Your task to perform on an android device: open the mobile data screen to see how much data has been used Image 0: 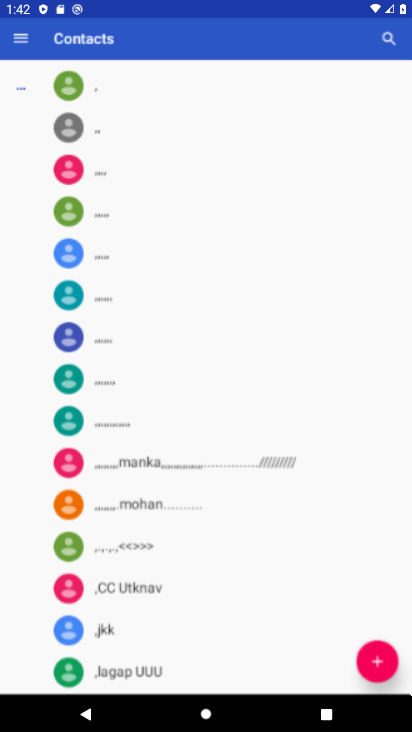
Step 0: drag from (223, 609) to (253, 389)
Your task to perform on an android device: open the mobile data screen to see how much data has been used Image 1: 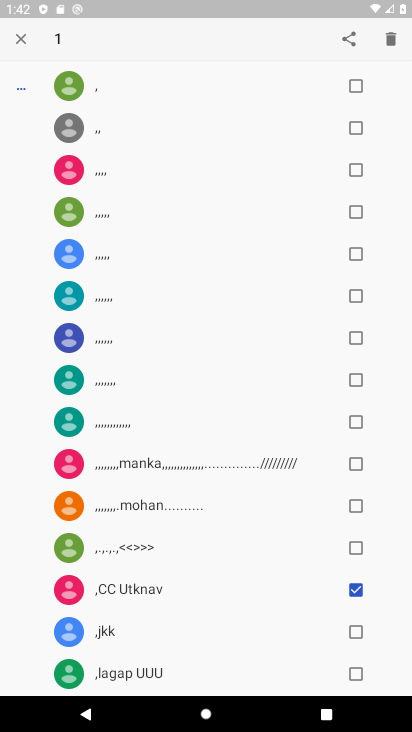
Step 1: press home button
Your task to perform on an android device: open the mobile data screen to see how much data has been used Image 2: 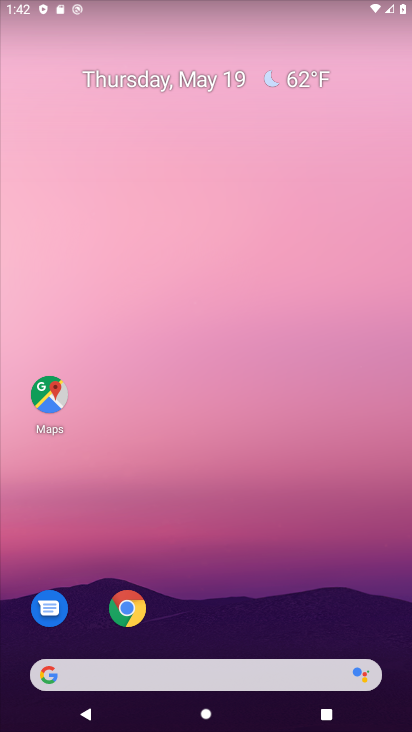
Step 2: drag from (261, 571) to (200, 59)
Your task to perform on an android device: open the mobile data screen to see how much data has been used Image 3: 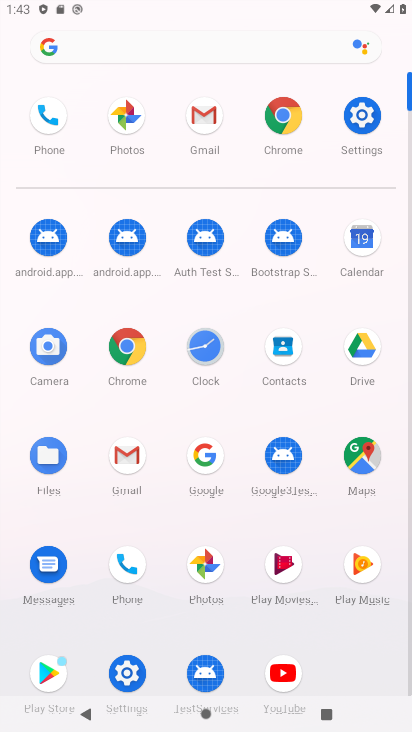
Step 3: click (365, 137)
Your task to perform on an android device: open the mobile data screen to see how much data has been used Image 4: 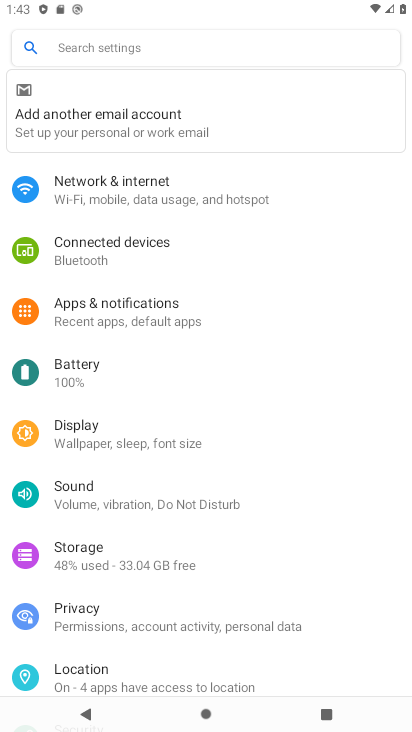
Step 4: click (126, 197)
Your task to perform on an android device: open the mobile data screen to see how much data has been used Image 5: 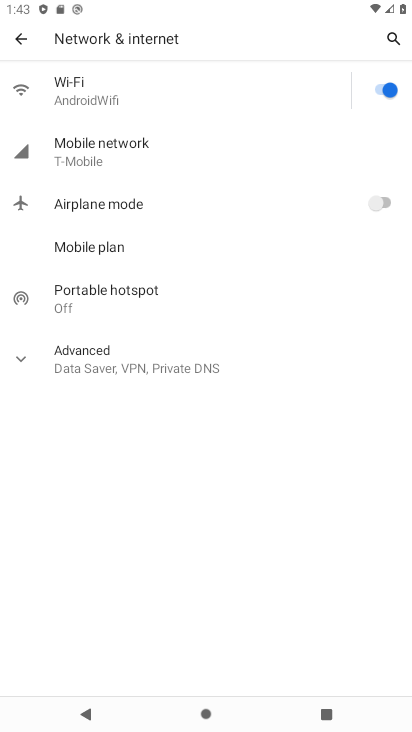
Step 5: click (88, 175)
Your task to perform on an android device: open the mobile data screen to see how much data has been used Image 6: 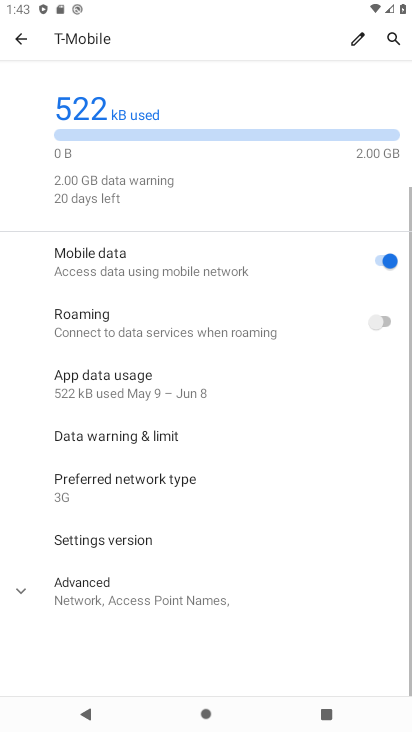
Step 6: task complete